Your task to perform on an android device: Is it going to rain tomorrow? Image 0: 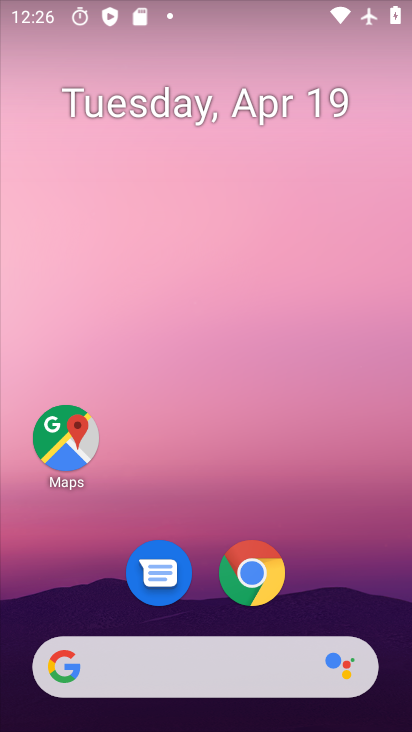
Step 0: click (252, 583)
Your task to perform on an android device: Is it going to rain tomorrow? Image 1: 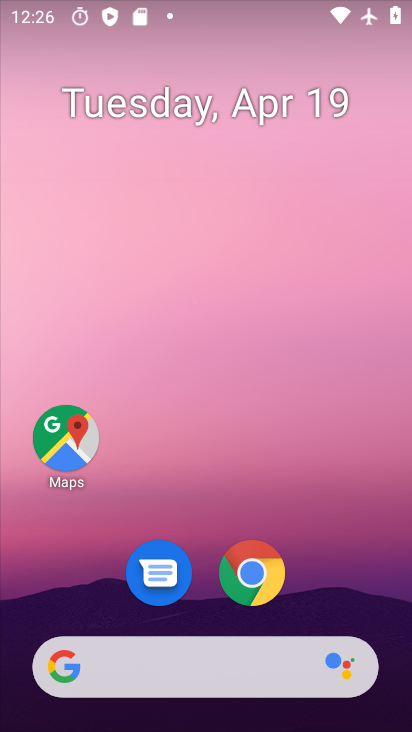
Step 1: click (266, 578)
Your task to perform on an android device: Is it going to rain tomorrow? Image 2: 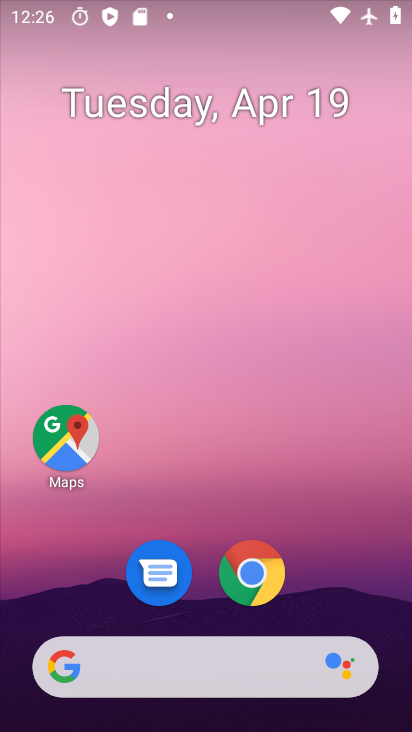
Step 2: click (266, 578)
Your task to perform on an android device: Is it going to rain tomorrow? Image 3: 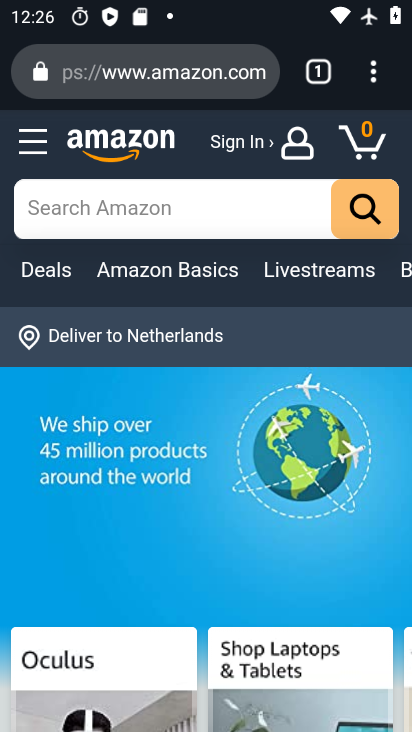
Step 3: click (152, 78)
Your task to perform on an android device: Is it going to rain tomorrow? Image 4: 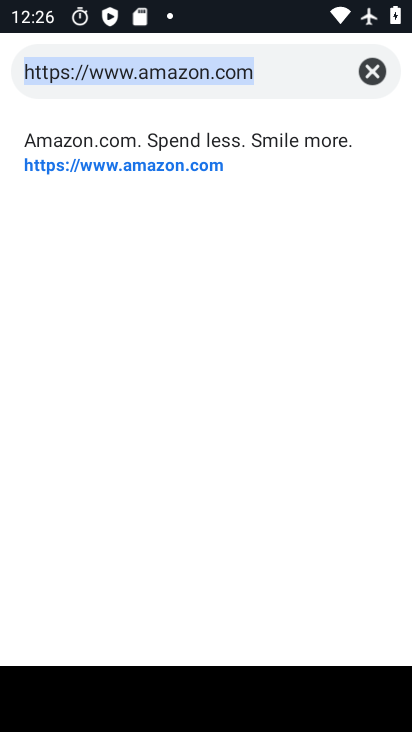
Step 4: type "Is it going to rain tomorrow"
Your task to perform on an android device: Is it going to rain tomorrow? Image 5: 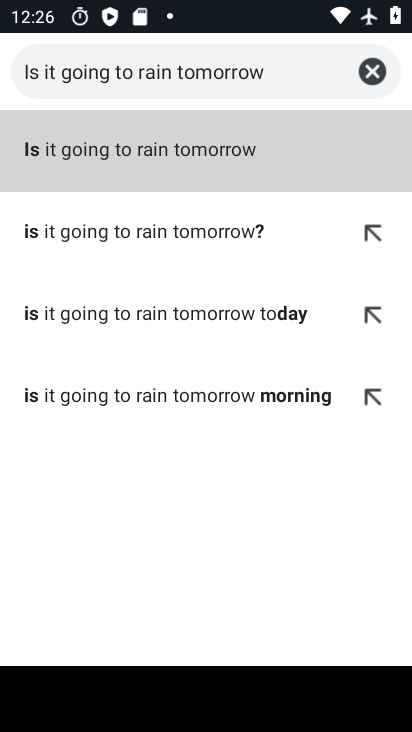
Step 5: click (213, 162)
Your task to perform on an android device: Is it going to rain tomorrow? Image 6: 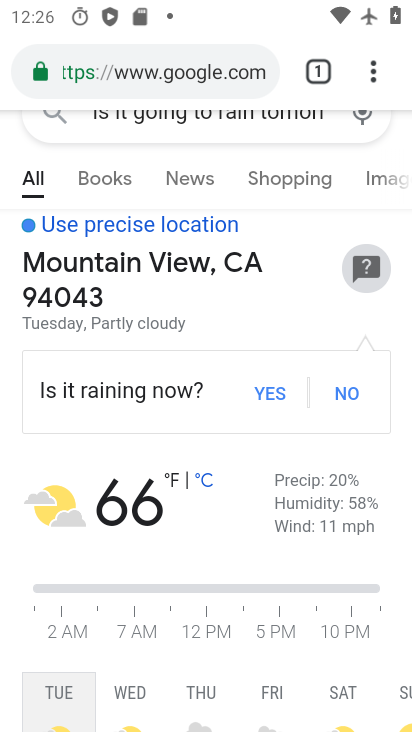
Step 6: task complete